Your task to perform on an android device: change notification settings in the gmail app Image 0: 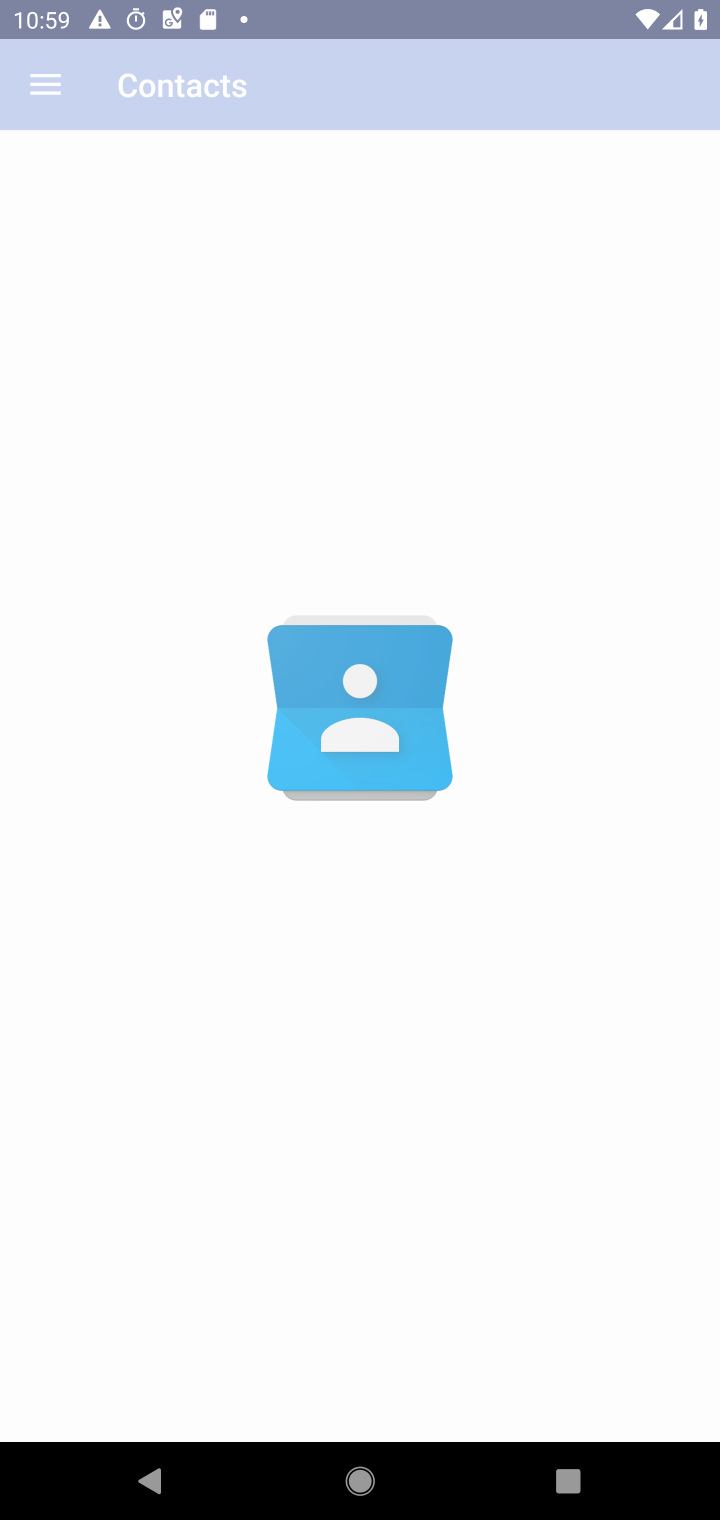
Step 0: press home button
Your task to perform on an android device: change notification settings in the gmail app Image 1: 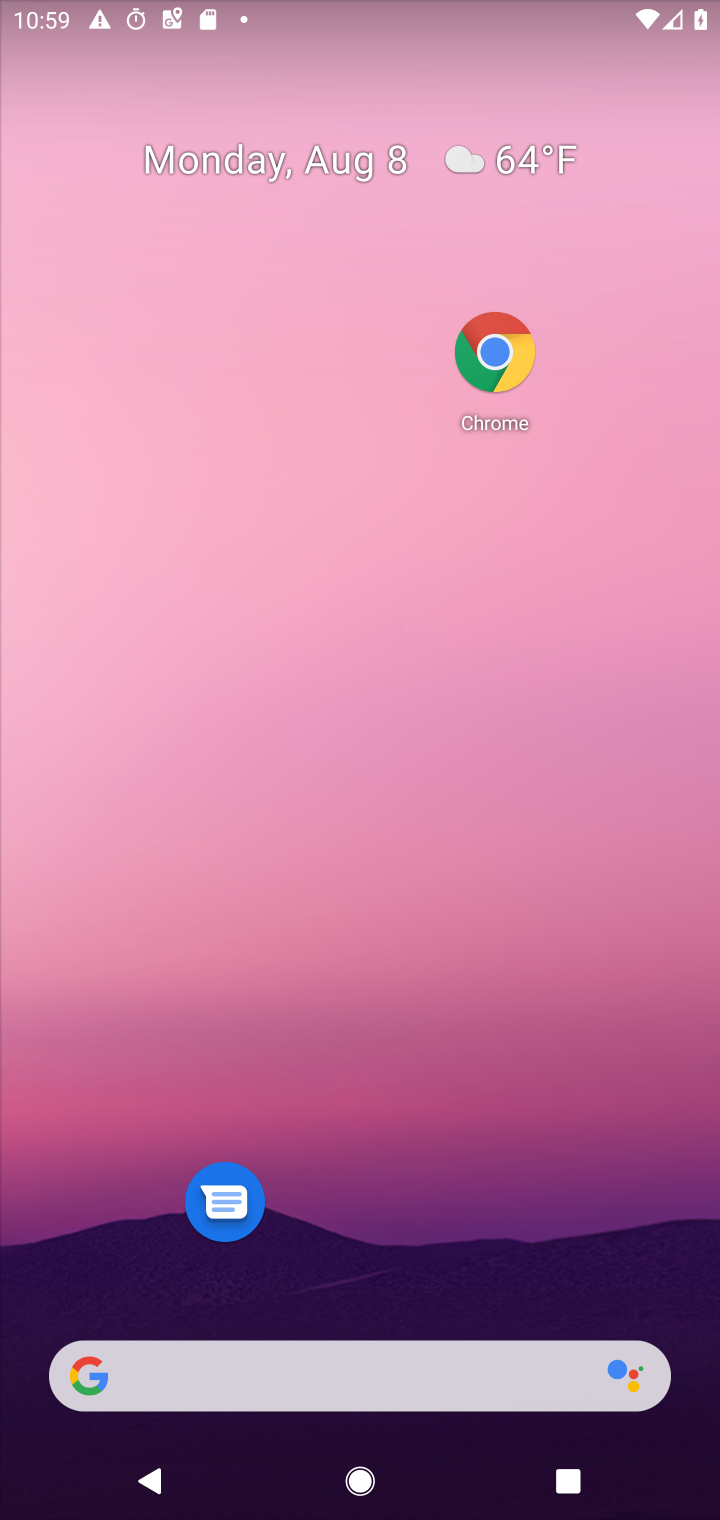
Step 1: drag from (390, 1313) to (355, 568)
Your task to perform on an android device: change notification settings in the gmail app Image 2: 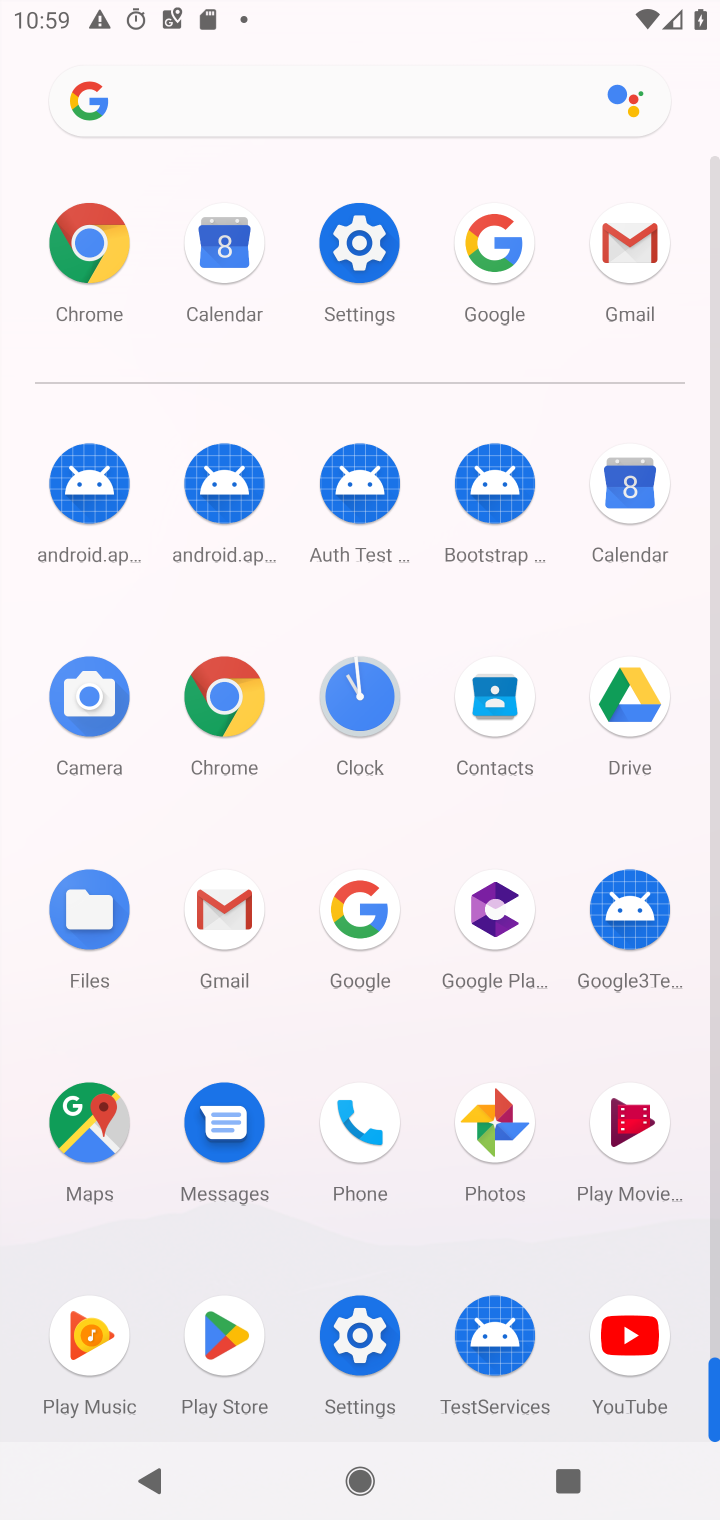
Step 2: click (226, 940)
Your task to perform on an android device: change notification settings in the gmail app Image 3: 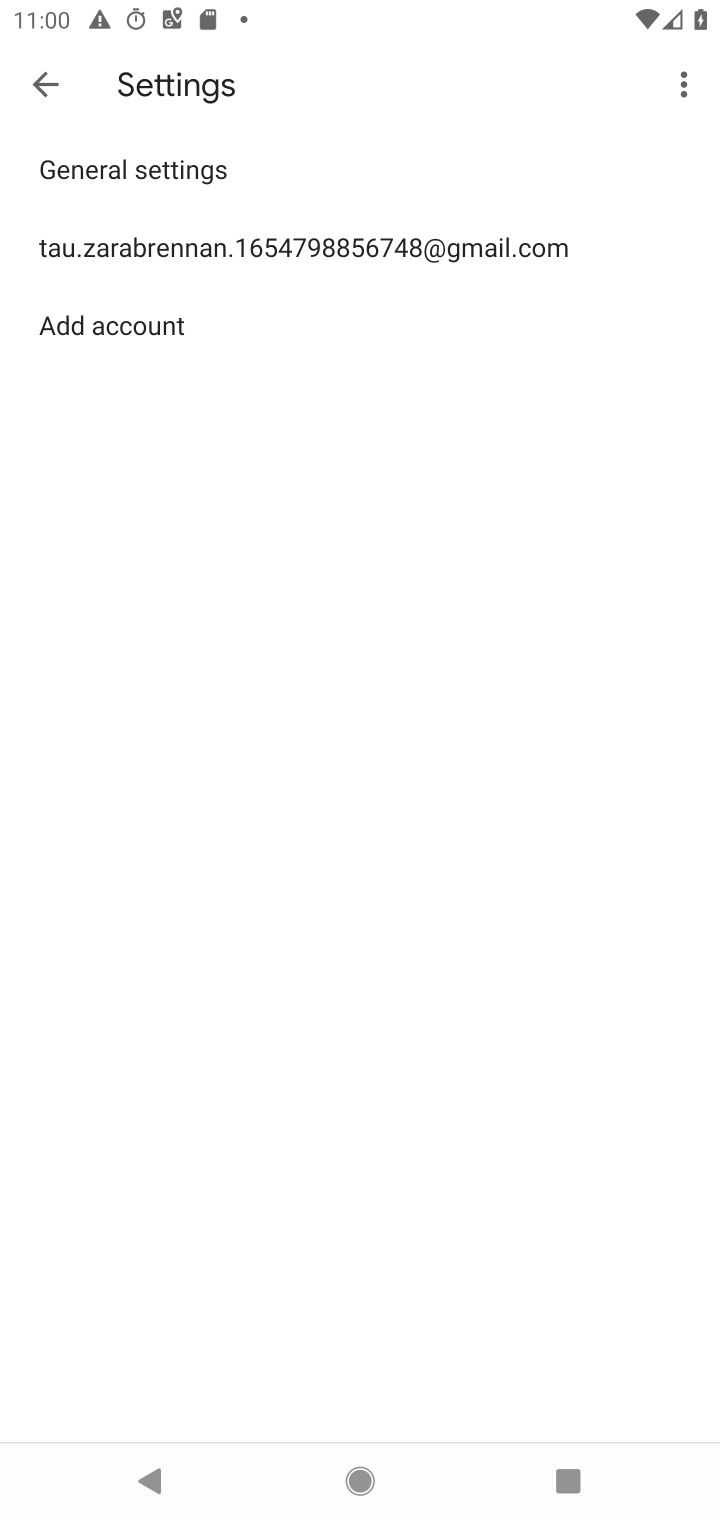
Step 3: click (168, 167)
Your task to perform on an android device: change notification settings in the gmail app Image 4: 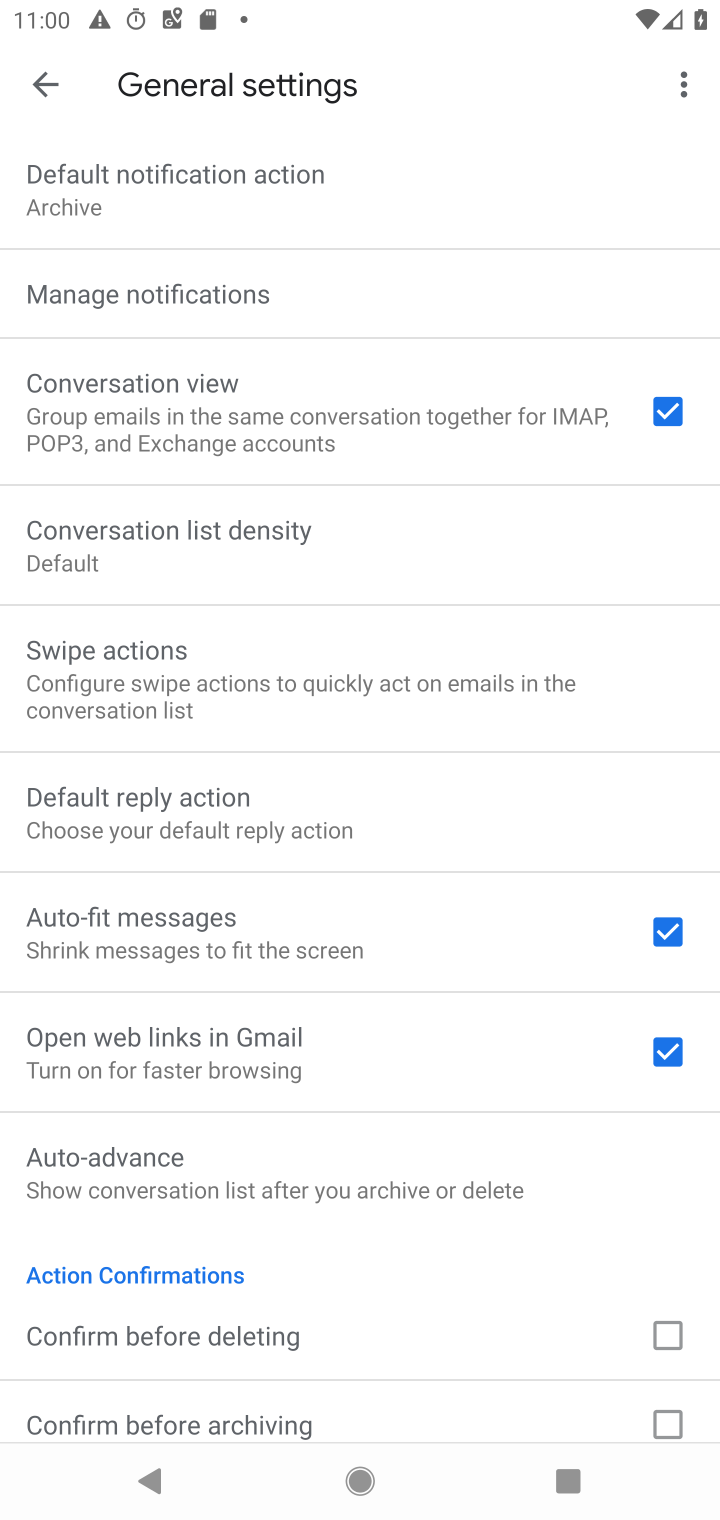
Step 4: click (209, 291)
Your task to perform on an android device: change notification settings in the gmail app Image 5: 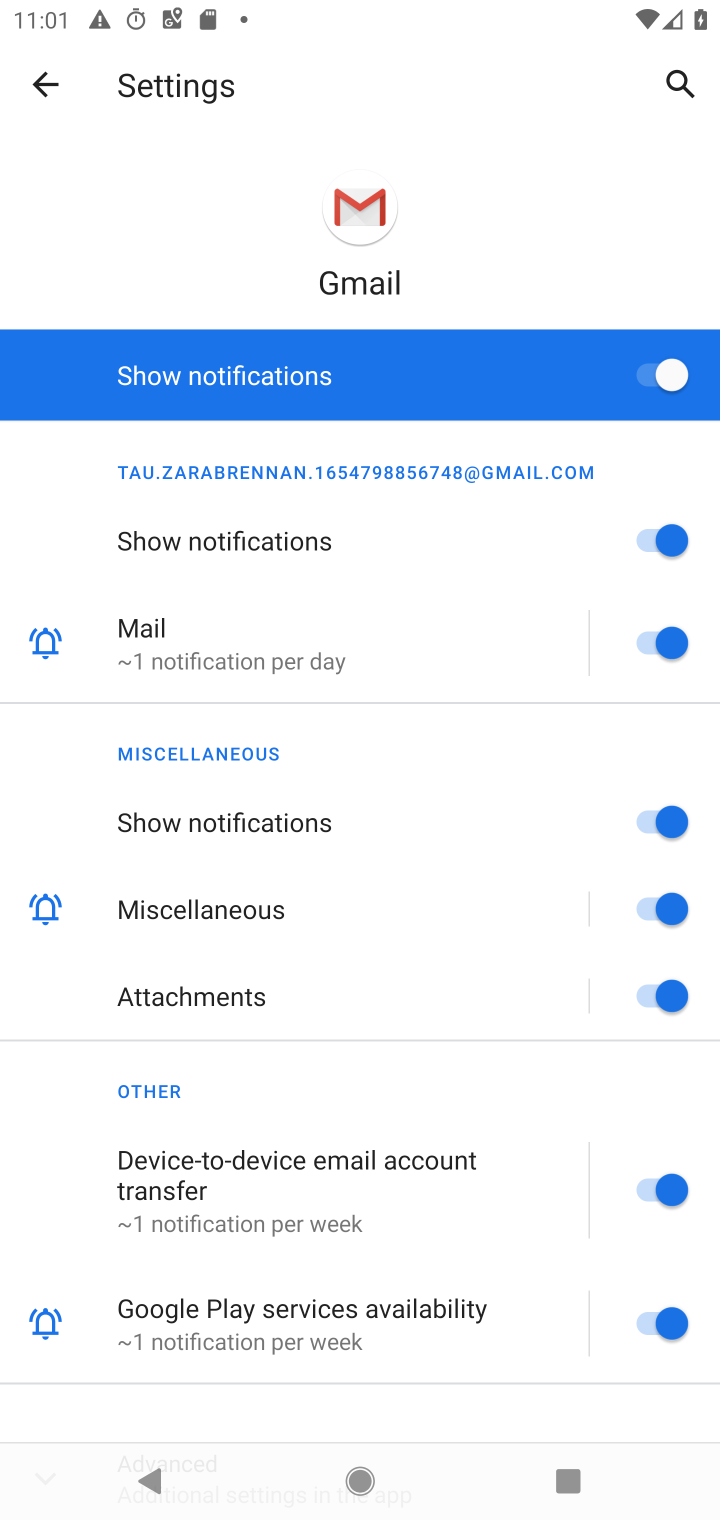
Step 5: click (612, 382)
Your task to perform on an android device: change notification settings in the gmail app Image 6: 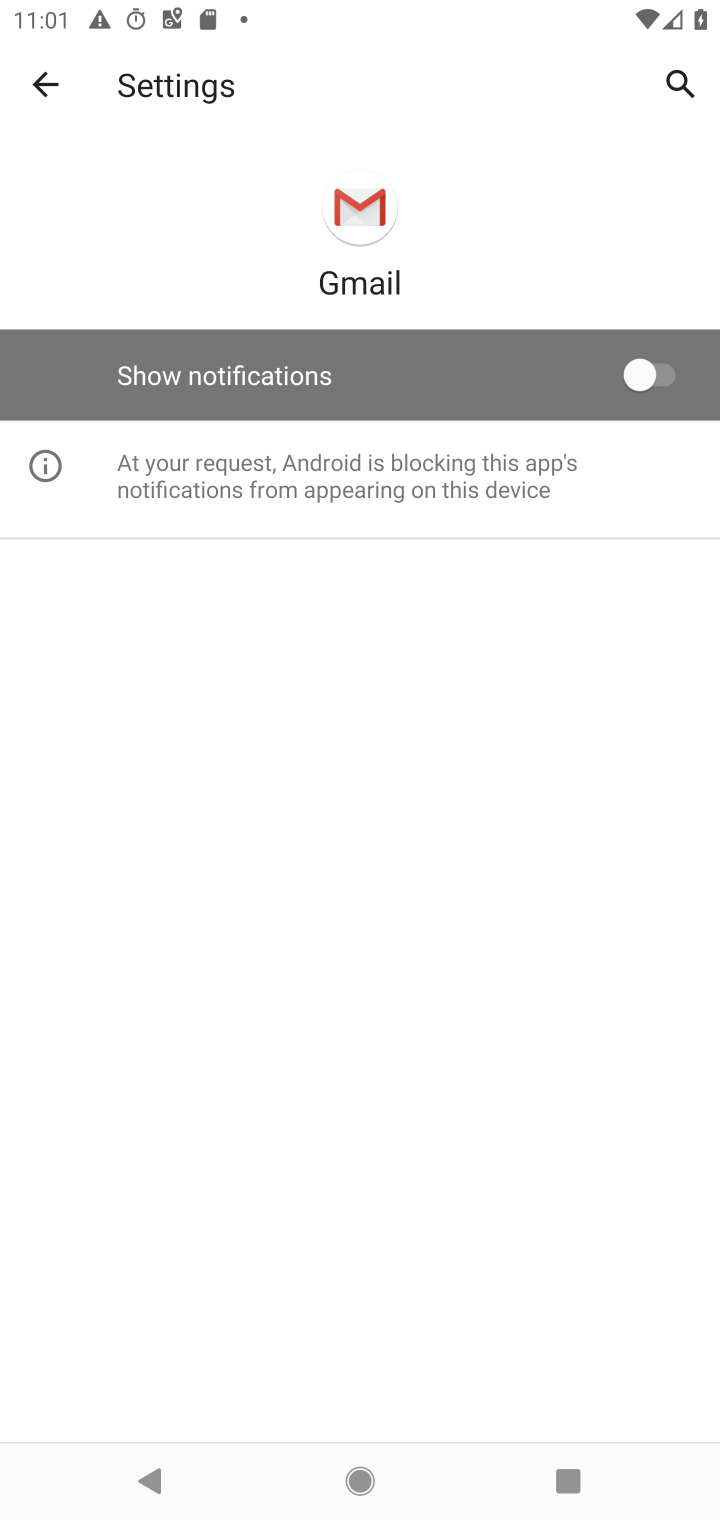
Step 6: click (536, 395)
Your task to perform on an android device: change notification settings in the gmail app Image 7: 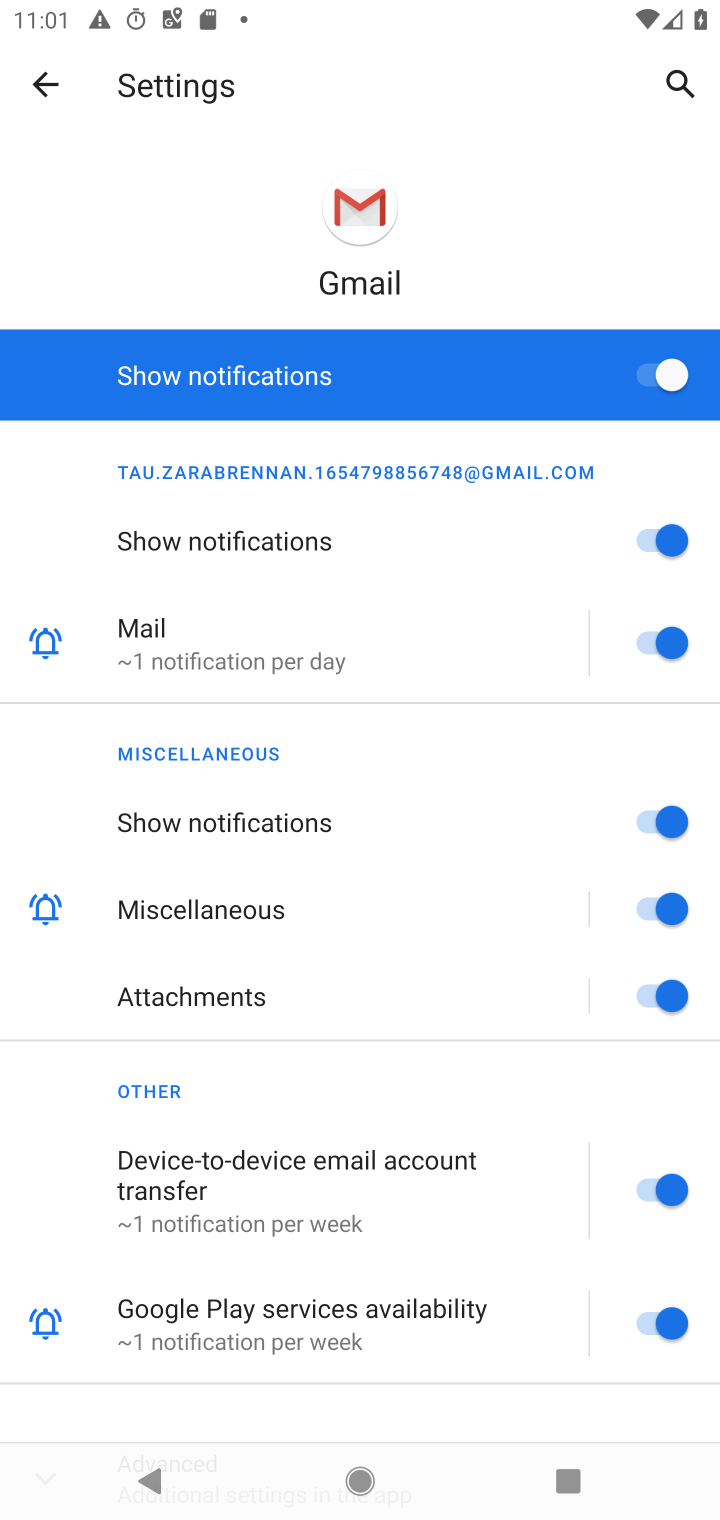
Step 7: task complete